Your task to perform on an android device: find snoozed emails in the gmail app Image 0: 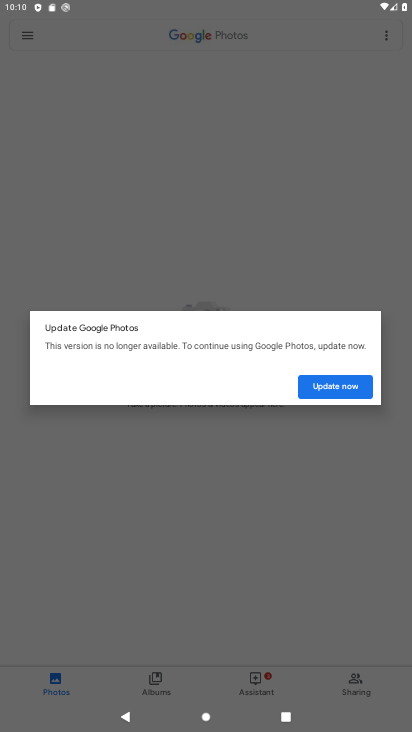
Step 0: press home button
Your task to perform on an android device: find snoozed emails in the gmail app Image 1: 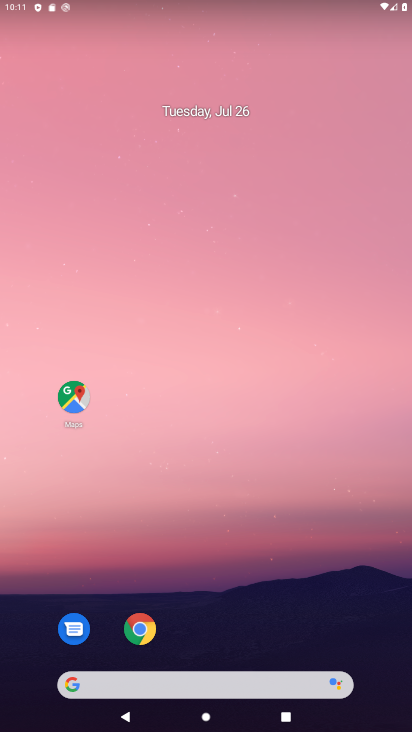
Step 1: drag from (331, 662) to (162, 7)
Your task to perform on an android device: find snoozed emails in the gmail app Image 2: 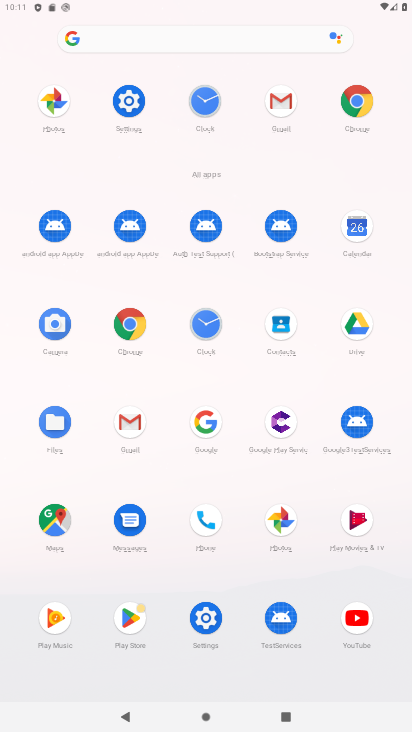
Step 2: click (278, 100)
Your task to perform on an android device: find snoozed emails in the gmail app Image 3: 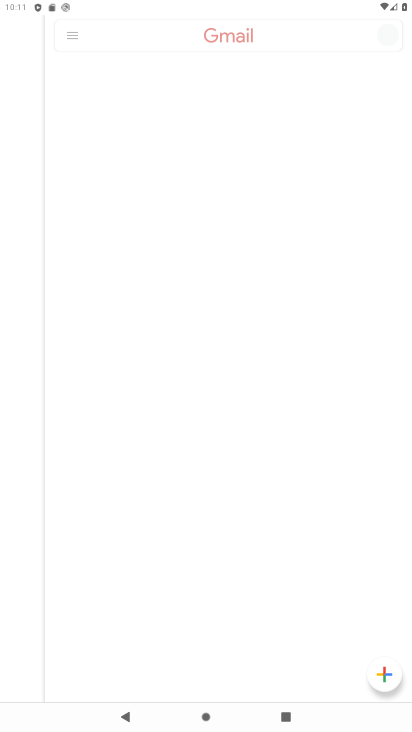
Step 3: task complete